Your task to perform on an android device: Search for vegetarian restaurants on Maps Image 0: 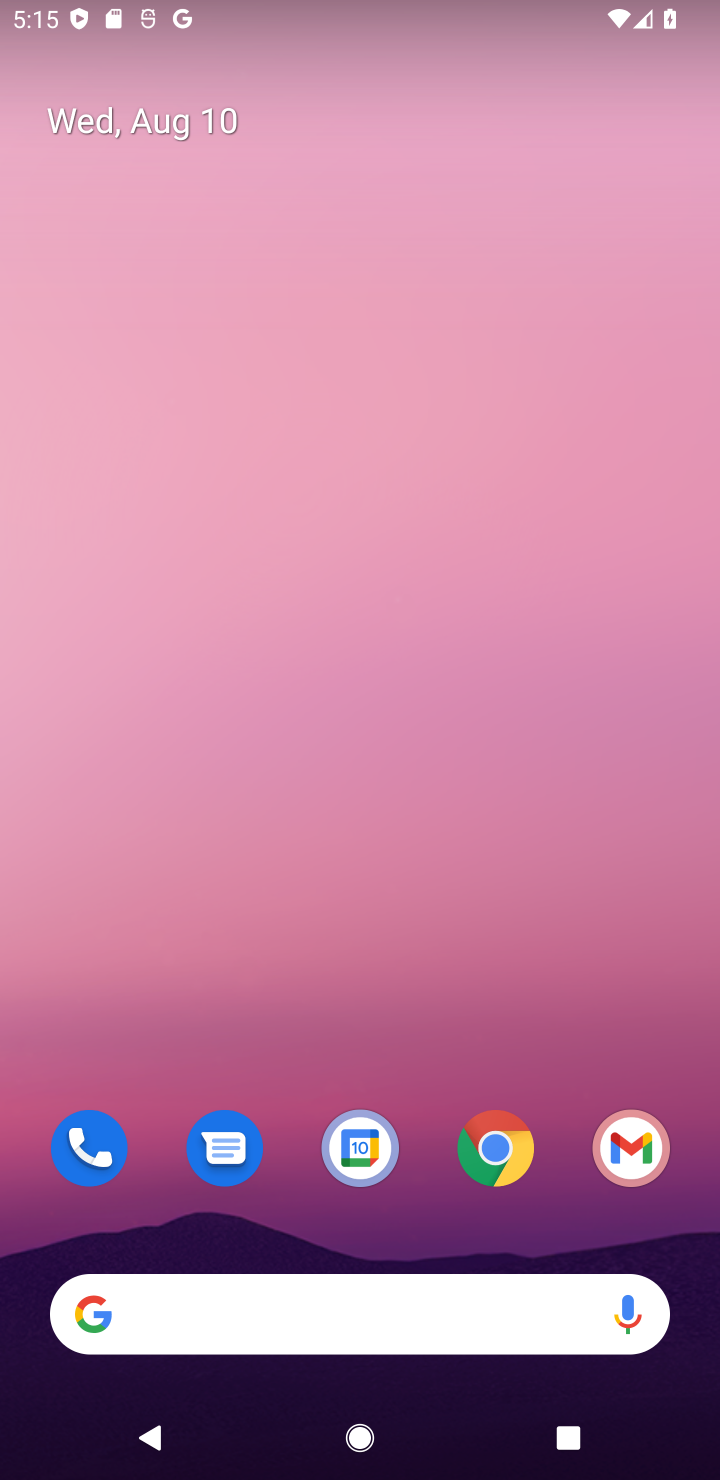
Step 0: drag from (276, 1226) to (370, 308)
Your task to perform on an android device: Search for vegetarian restaurants on Maps Image 1: 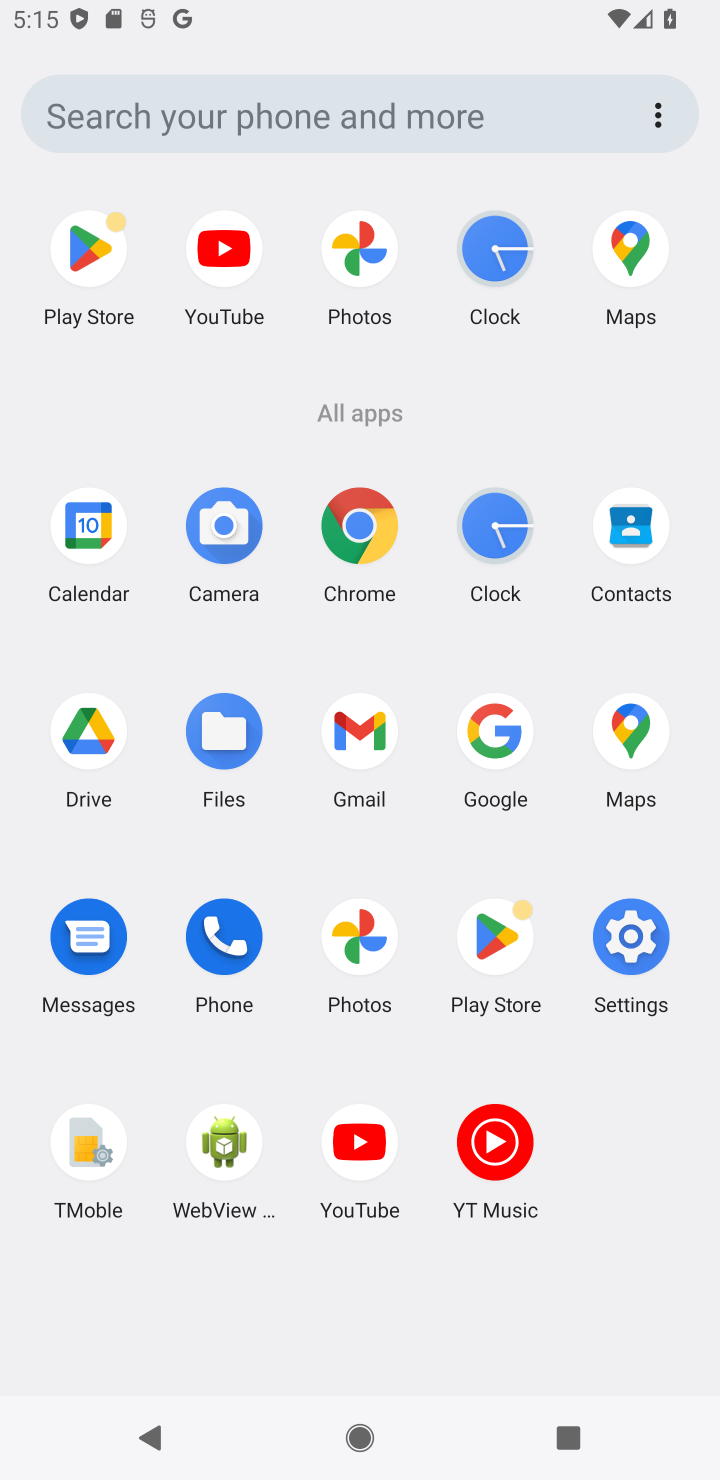
Step 1: click (630, 738)
Your task to perform on an android device: Search for vegetarian restaurants on Maps Image 2: 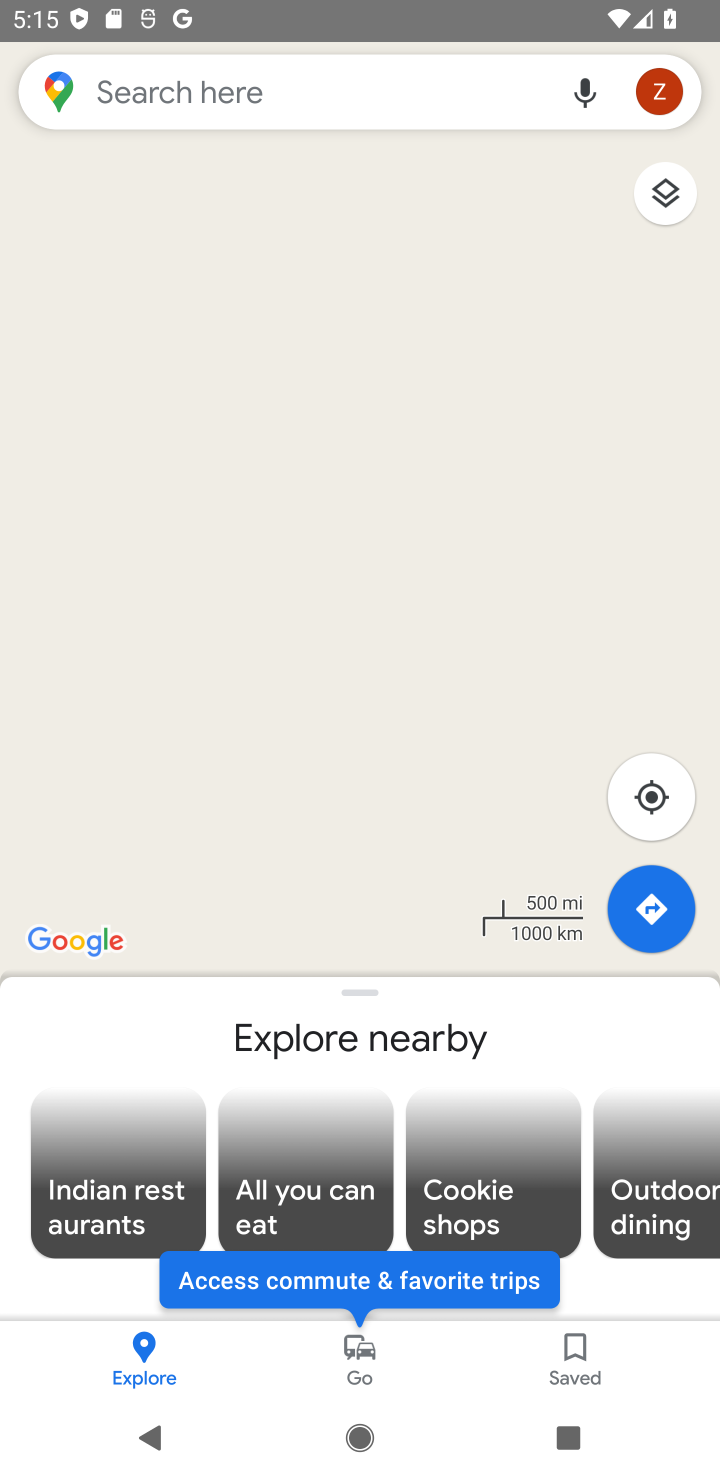
Step 2: click (302, 104)
Your task to perform on an android device: Search for vegetarian restaurants on Maps Image 3: 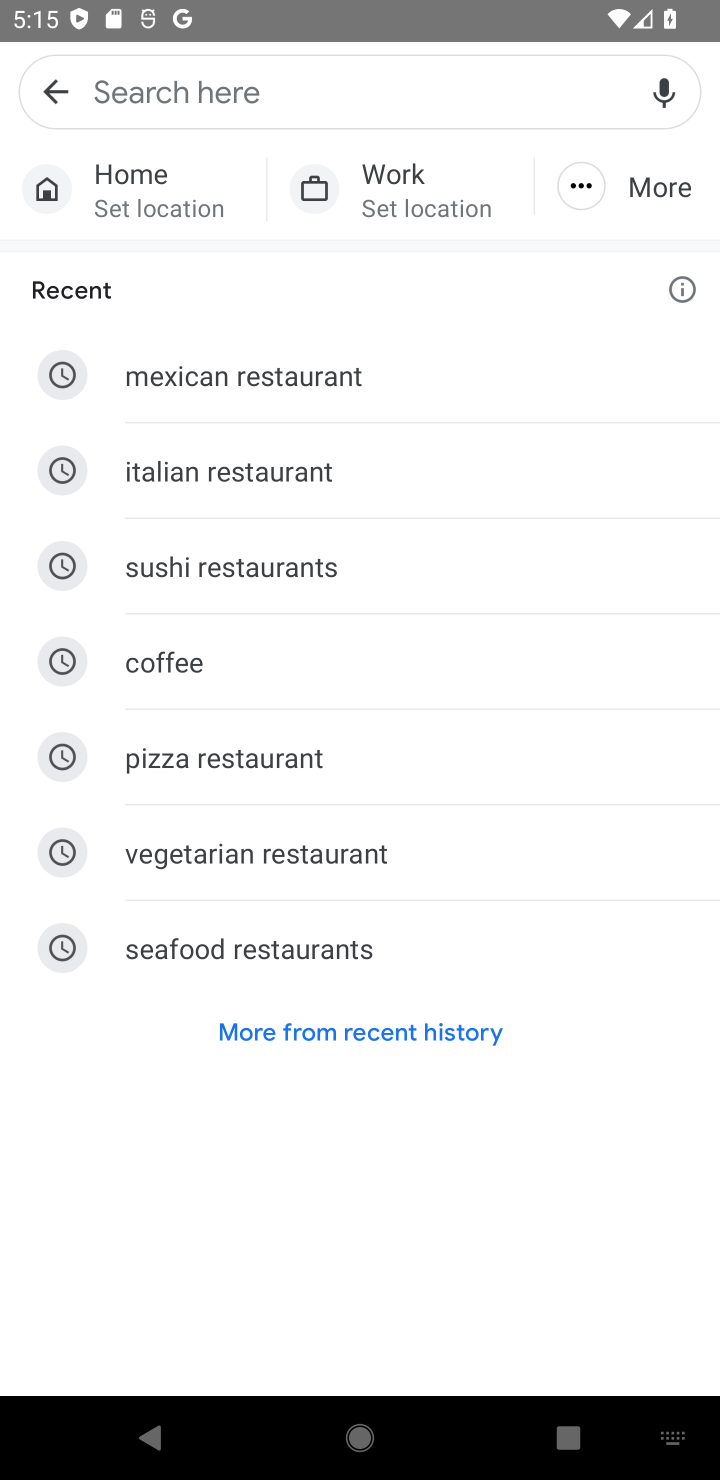
Step 3: click (227, 857)
Your task to perform on an android device: Search for vegetarian restaurants on Maps Image 4: 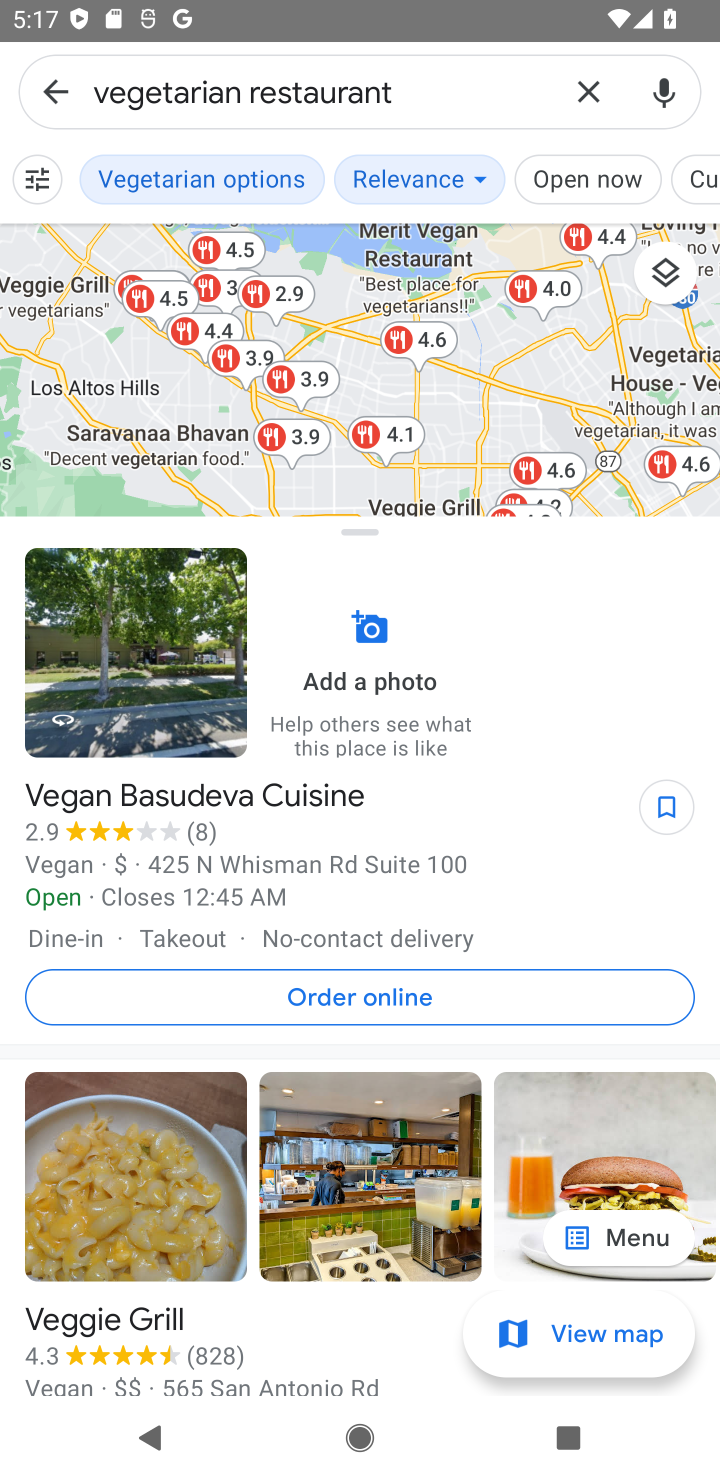
Step 4: task complete